Your task to perform on an android device: Open the phone app and click the voicemail tab. Image 0: 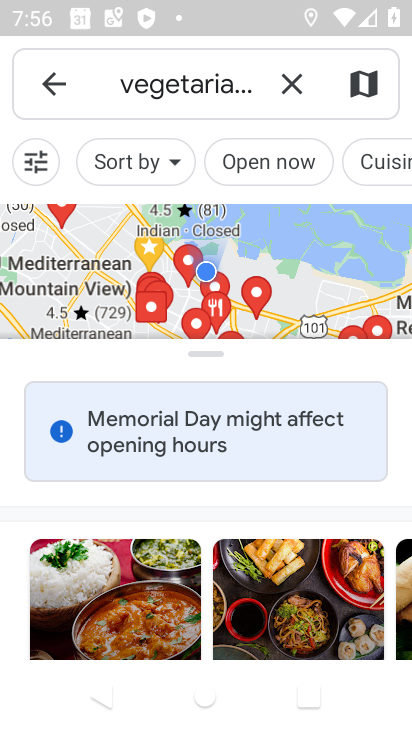
Step 0: press home button
Your task to perform on an android device: Open the phone app and click the voicemail tab. Image 1: 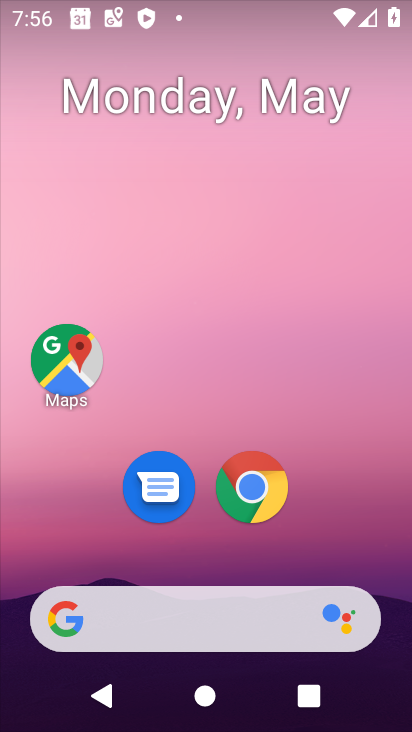
Step 1: drag from (384, 532) to (361, 201)
Your task to perform on an android device: Open the phone app and click the voicemail tab. Image 2: 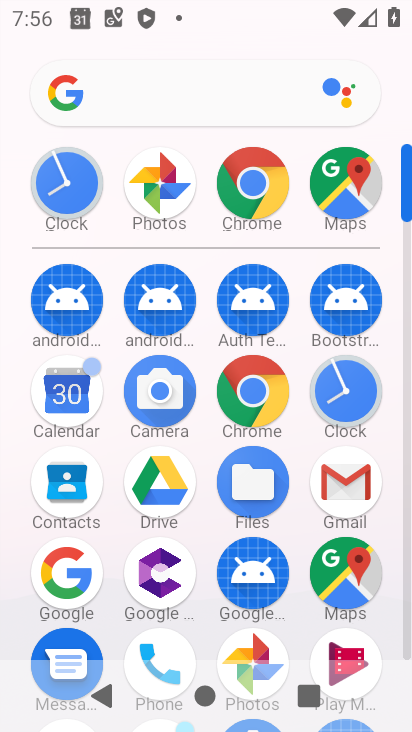
Step 2: drag from (384, 528) to (386, 287)
Your task to perform on an android device: Open the phone app and click the voicemail tab. Image 3: 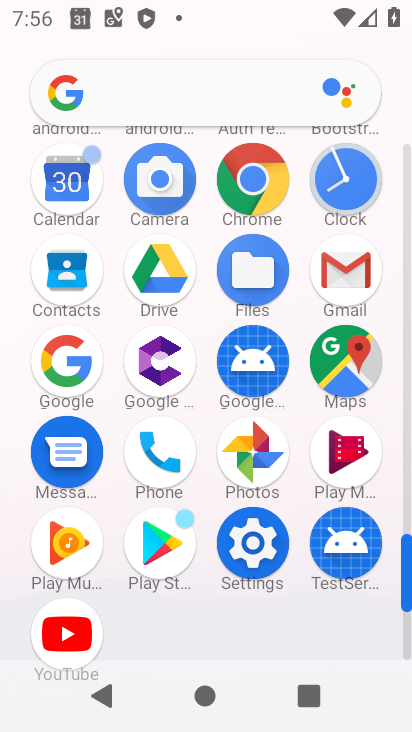
Step 3: click (152, 463)
Your task to perform on an android device: Open the phone app and click the voicemail tab. Image 4: 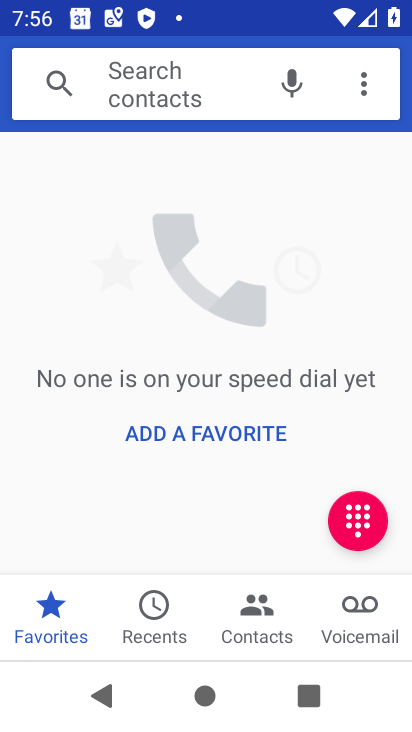
Step 4: click (369, 608)
Your task to perform on an android device: Open the phone app and click the voicemail tab. Image 5: 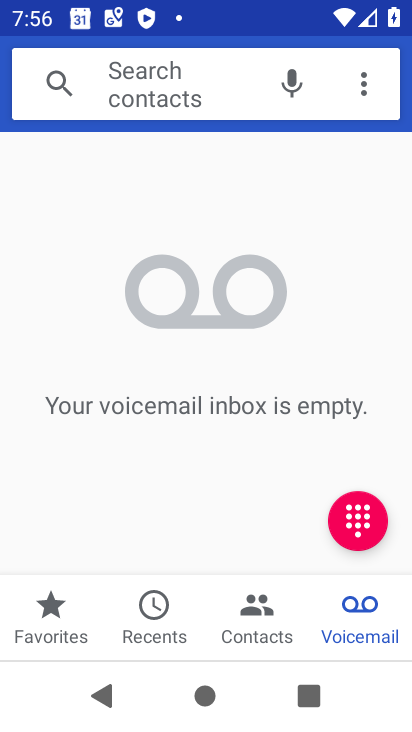
Step 5: task complete